Your task to perform on an android device: Toggle the flashlight Image 0: 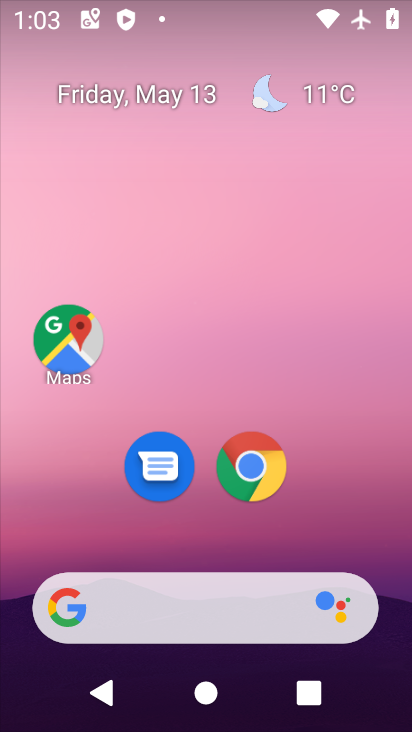
Step 0: drag from (211, 550) to (215, 0)
Your task to perform on an android device: Toggle the flashlight Image 1: 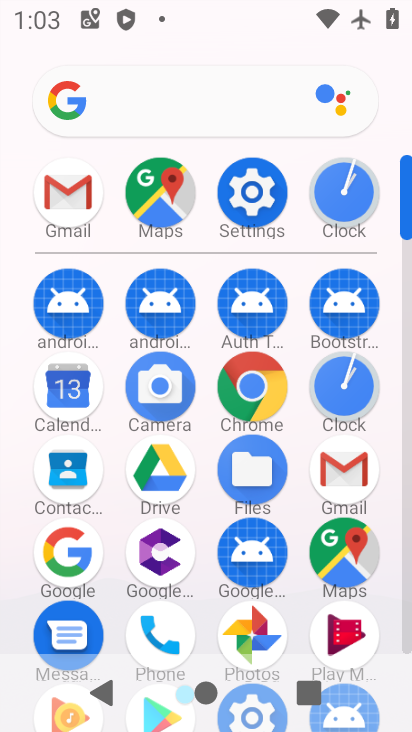
Step 1: click (250, 189)
Your task to perform on an android device: Toggle the flashlight Image 2: 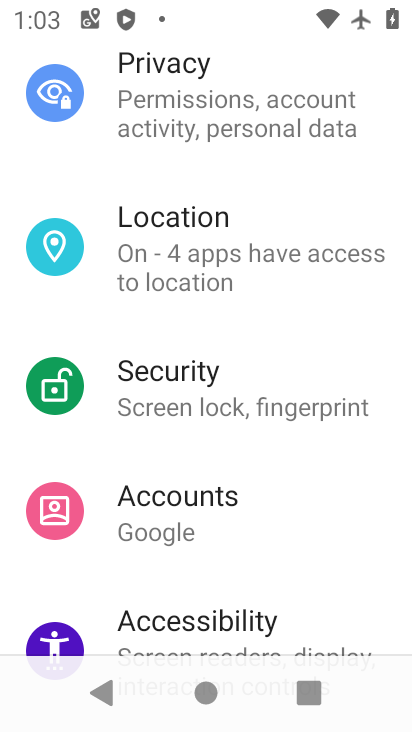
Step 2: task complete